Your task to perform on an android device: Open eBay Image 0: 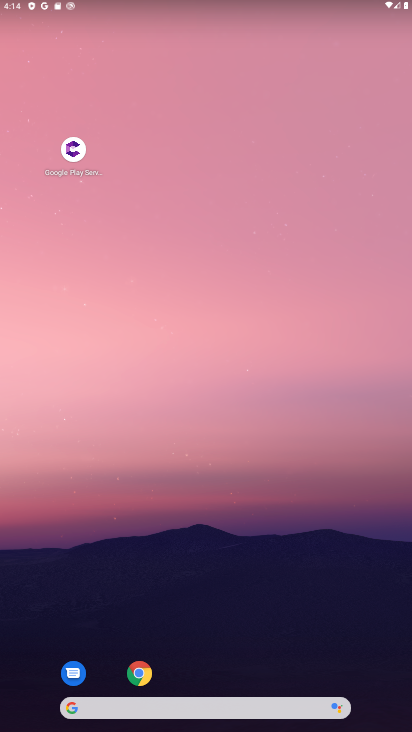
Step 0: click (139, 674)
Your task to perform on an android device: Open eBay Image 1: 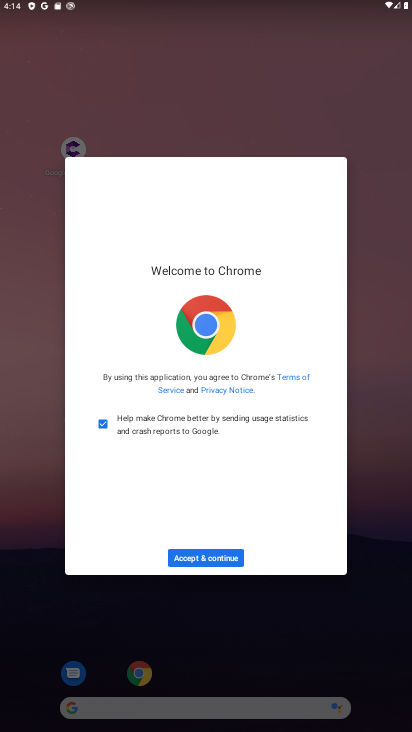
Step 1: click (215, 555)
Your task to perform on an android device: Open eBay Image 2: 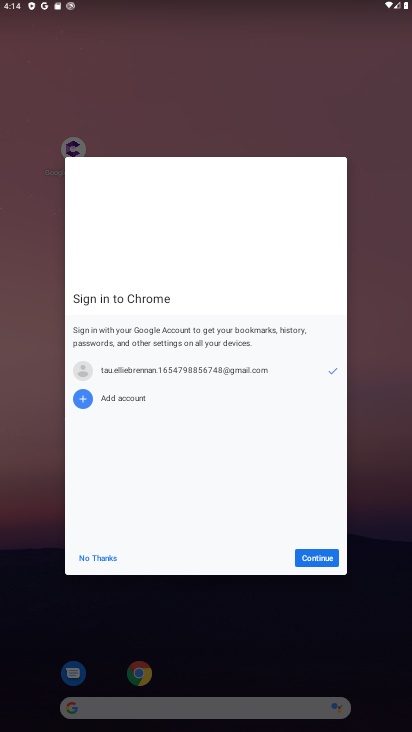
Step 2: click (319, 559)
Your task to perform on an android device: Open eBay Image 3: 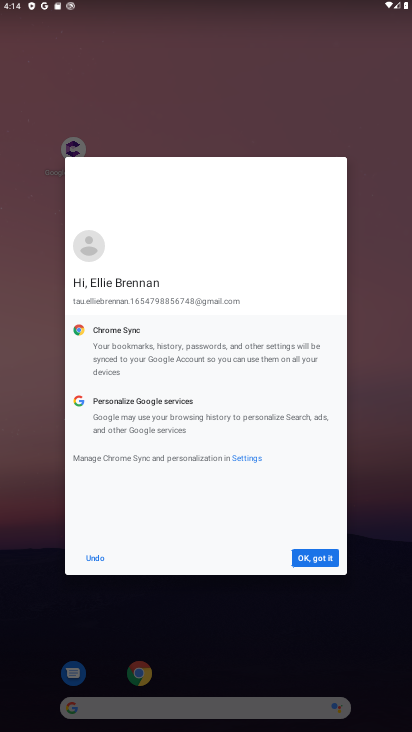
Step 3: click (315, 557)
Your task to perform on an android device: Open eBay Image 4: 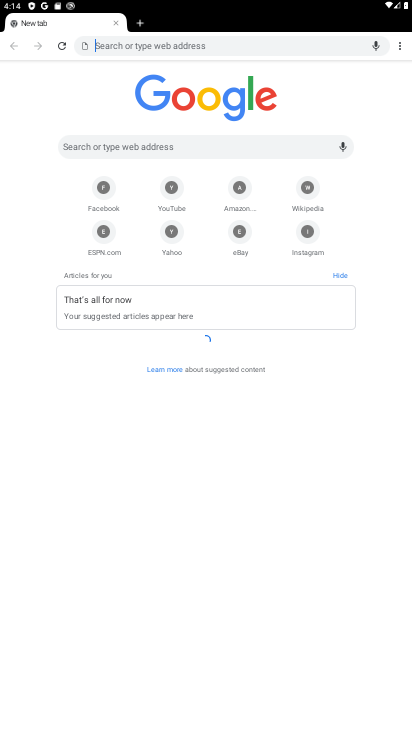
Step 4: click (145, 143)
Your task to perform on an android device: Open eBay Image 5: 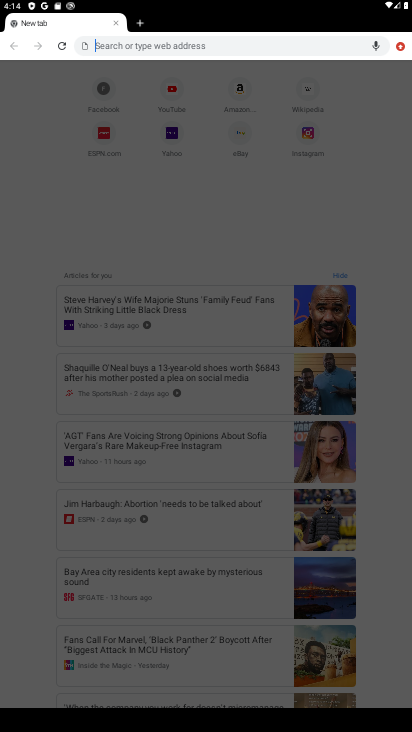
Step 5: type "eBay"
Your task to perform on an android device: Open eBay Image 6: 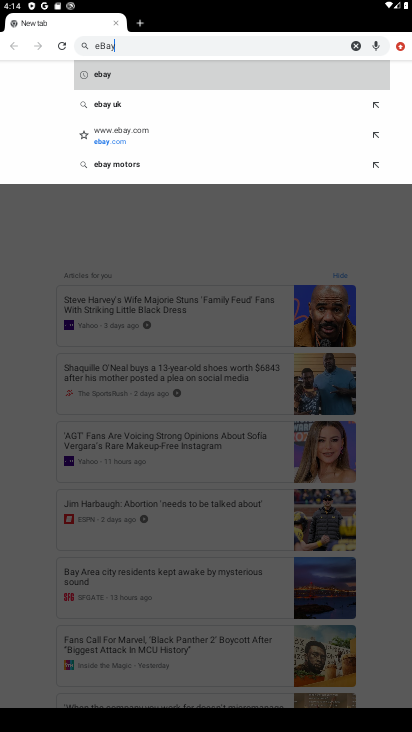
Step 6: click (111, 68)
Your task to perform on an android device: Open eBay Image 7: 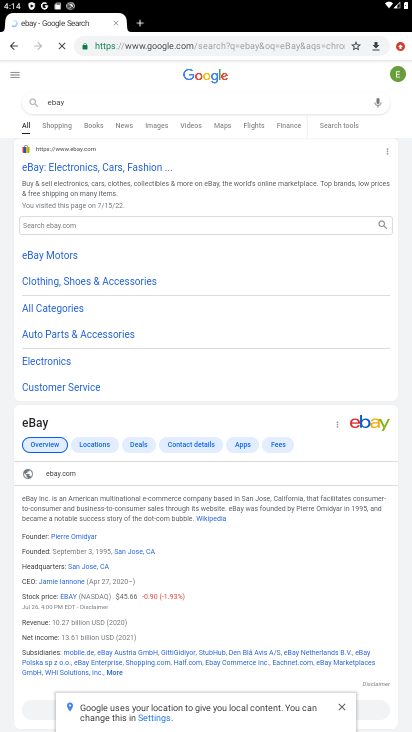
Step 7: click (72, 170)
Your task to perform on an android device: Open eBay Image 8: 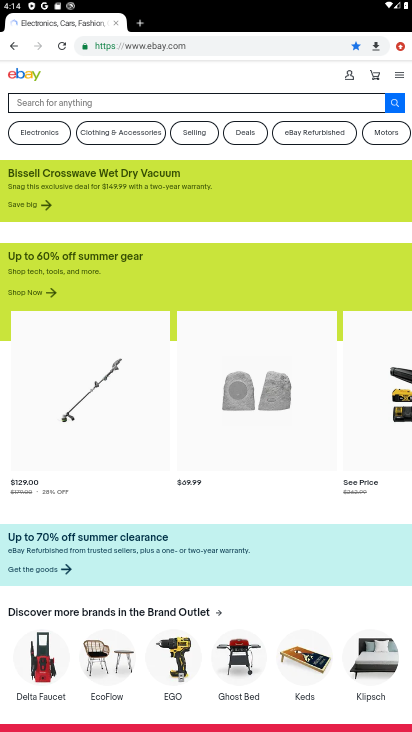
Step 8: task complete